Your task to perform on an android device: Open Chrome and go to the settings page Image 0: 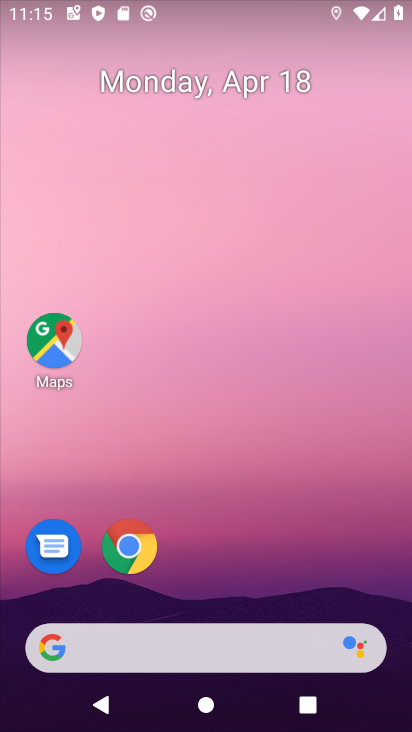
Step 0: click (141, 553)
Your task to perform on an android device: Open Chrome and go to the settings page Image 1: 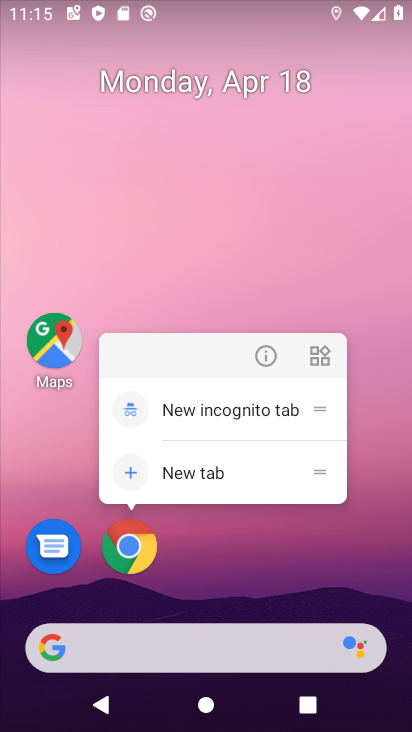
Step 1: click (141, 553)
Your task to perform on an android device: Open Chrome and go to the settings page Image 2: 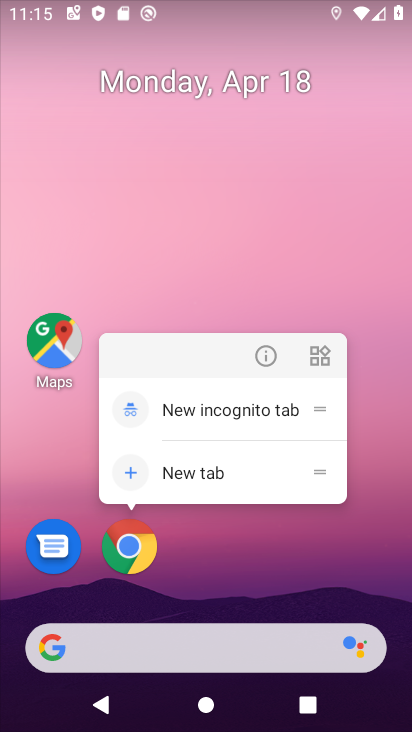
Step 2: click (141, 553)
Your task to perform on an android device: Open Chrome and go to the settings page Image 3: 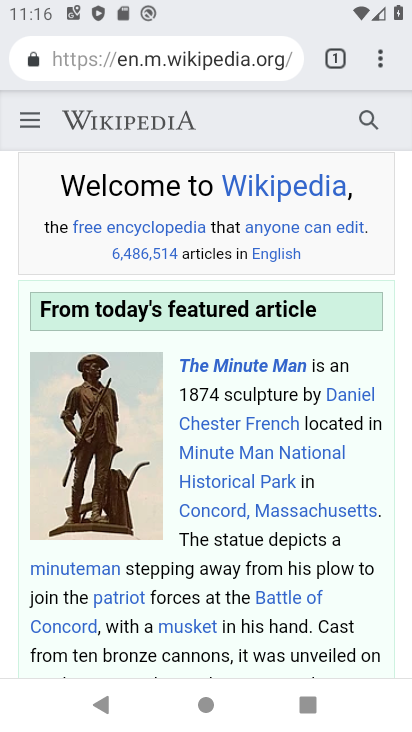
Step 3: click (373, 57)
Your task to perform on an android device: Open Chrome and go to the settings page Image 4: 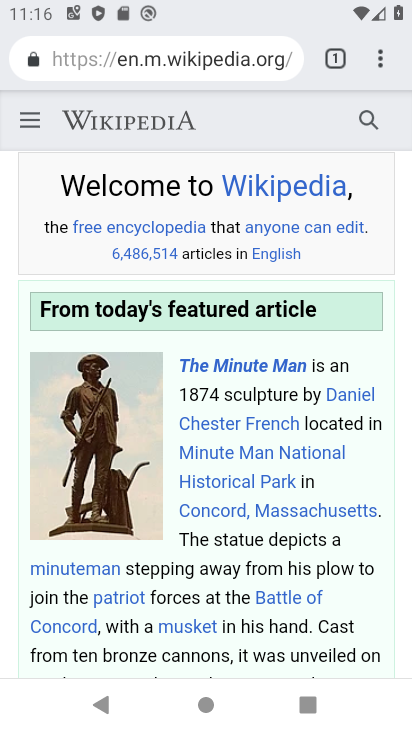
Step 4: click (382, 65)
Your task to perform on an android device: Open Chrome and go to the settings page Image 5: 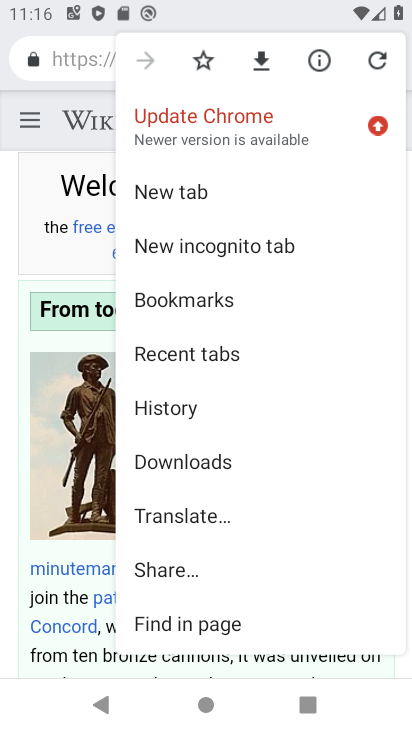
Step 5: drag from (258, 531) to (271, 221)
Your task to perform on an android device: Open Chrome and go to the settings page Image 6: 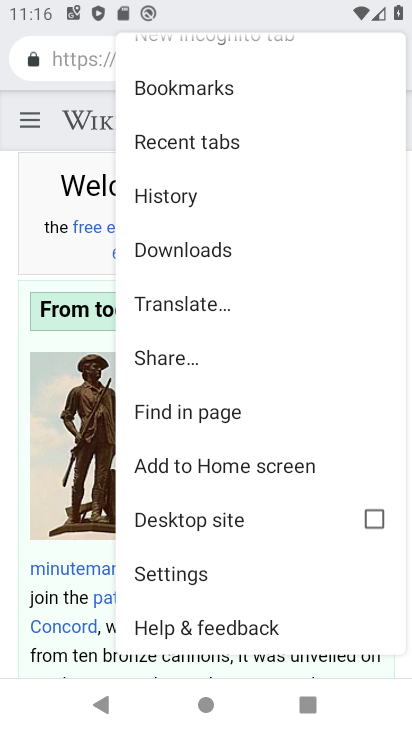
Step 6: click (224, 588)
Your task to perform on an android device: Open Chrome and go to the settings page Image 7: 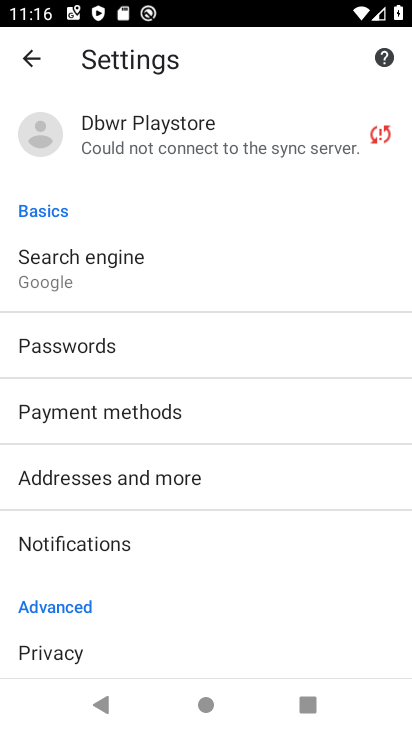
Step 7: task complete